Your task to perform on an android device: Open Chrome and go to settings Image 0: 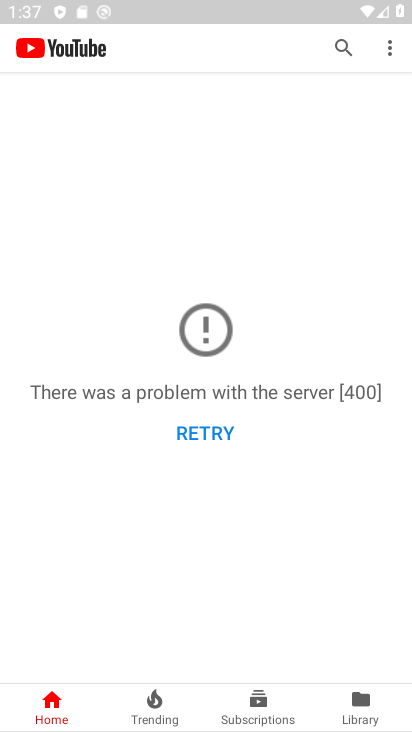
Step 0: press home button
Your task to perform on an android device: Open Chrome and go to settings Image 1: 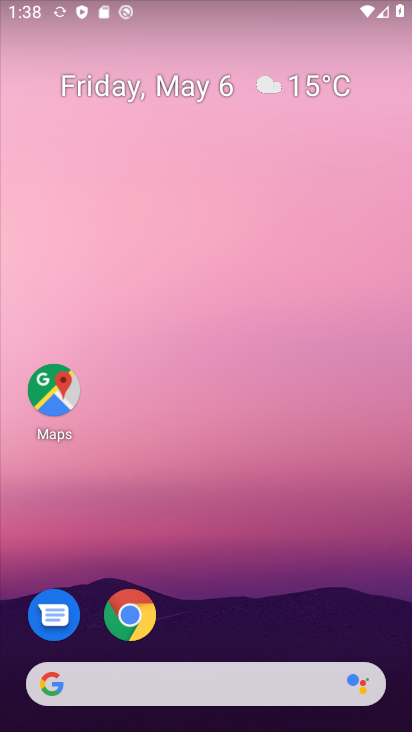
Step 1: click (127, 633)
Your task to perform on an android device: Open Chrome and go to settings Image 2: 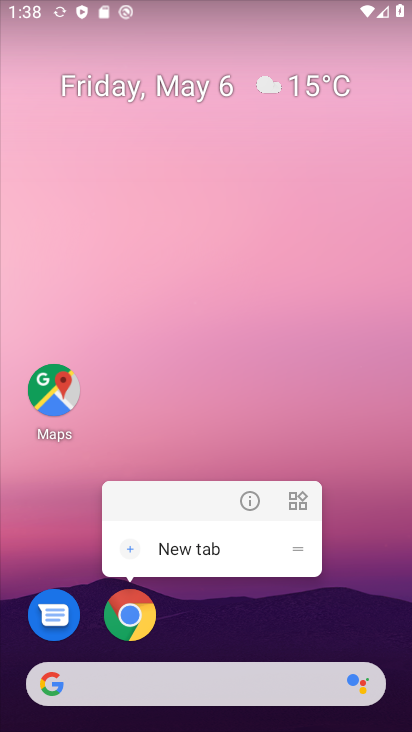
Step 2: click (144, 626)
Your task to perform on an android device: Open Chrome and go to settings Image 3: 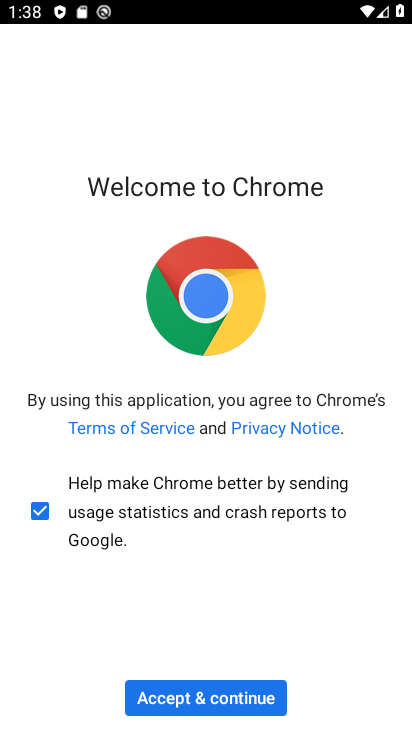
Step 3: click (205, 700)
Your task to perform on an android device: Open Chrome and go to settings Image 4: 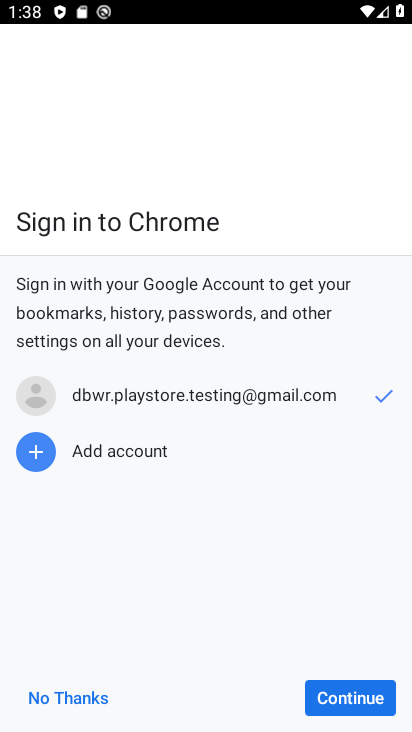
Step 4: click (338, 706)
Your task to perform on an android device: Open Chrome and go to settings Image 5: 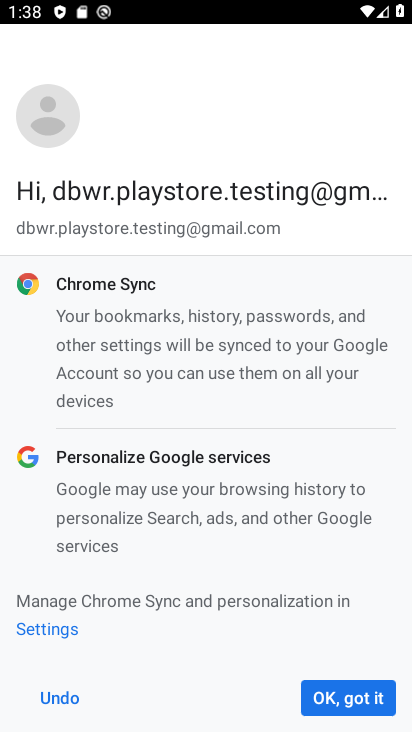
Step 5: click (339, 704)
Your task to perform on an android device: Open Chrome and go to settings Image 6: 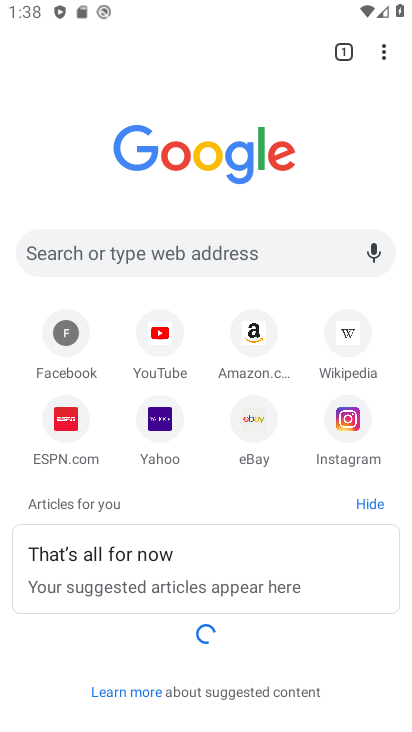
Step 6: task complete